Your task to perform on an android device: toggle javascript in the chrome app Image 0: 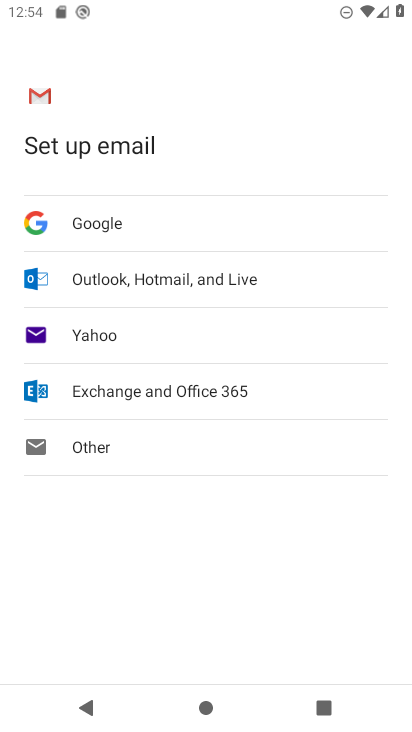
Step 0: press home button
Your task to perform on an android device: toggle javascript in the chrome app Image 1: 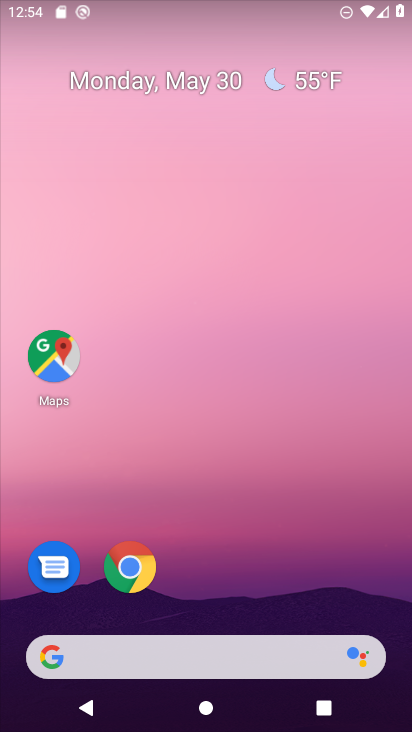
Step 1: click (129, 569)
Your task to perform on an android device: toggle javascript in the chrome app Image 2: 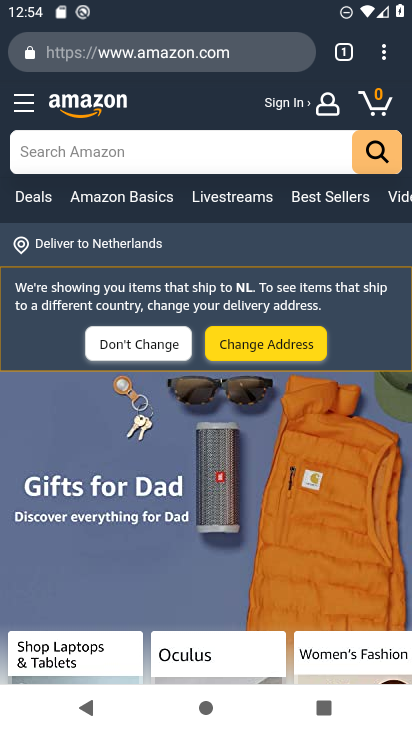
Step 2: click (383, 49)
Your task to perform on an android device: toggle javascript in the chrome app Image 3: 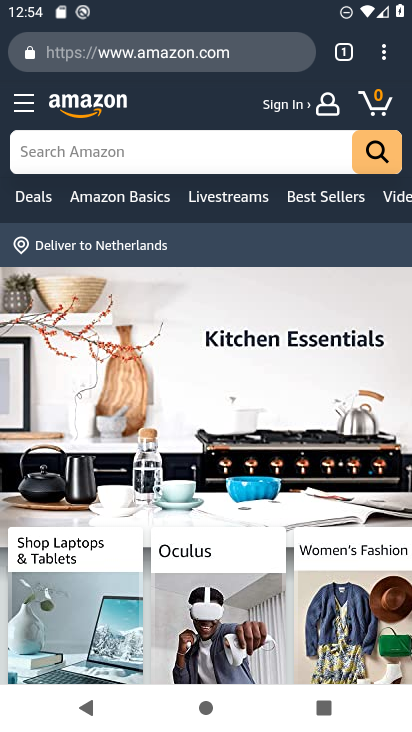
Step 3: click (381, 46)
Your task to perform on an android device: toggle javascript in the chrome app Image 4: 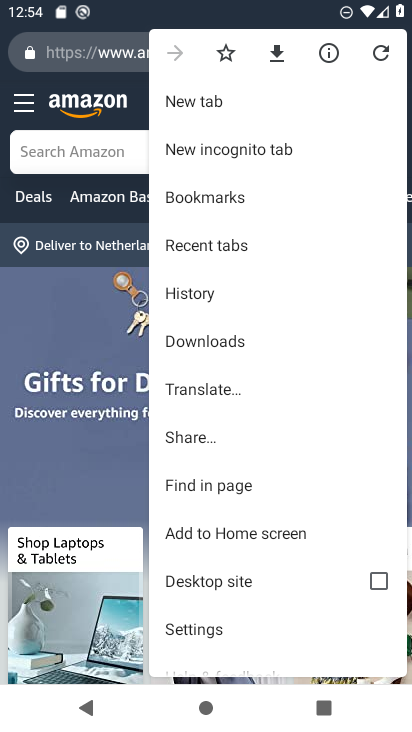
Step 4: click (227, 623)
Your task to perform on an android device: toggle javascript in the chrome app Image 5: 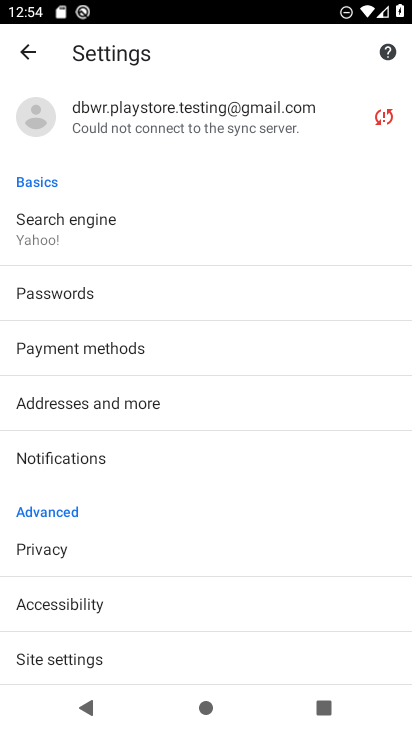
Step 5: click (109, 654)
Your task to perform on an android device: toggle javascript in the chrome app Image 6: 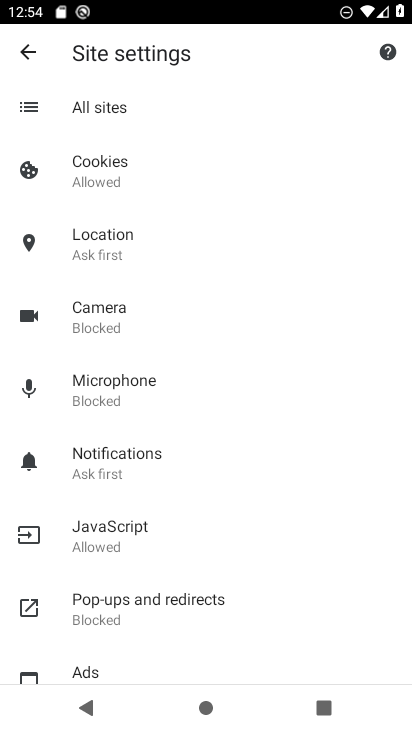
Step 6: click (162, 530)
Your task to perform on an android device: toggle javascript in the chrome app Image 7: 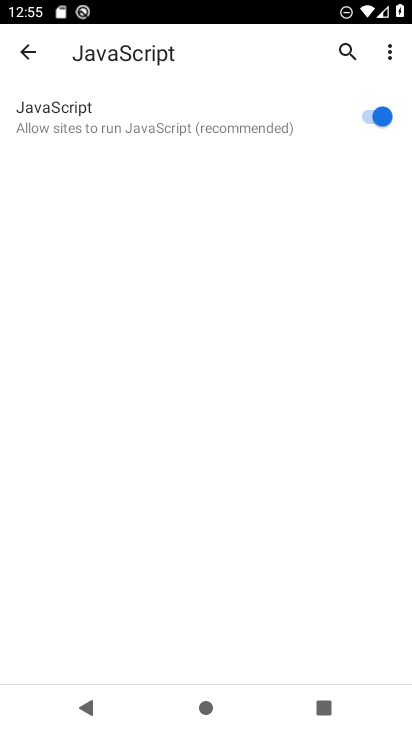
Step 7: click (372, 118)
Your task to perform on an android device: toggle javascript in the chrome app Image 8: 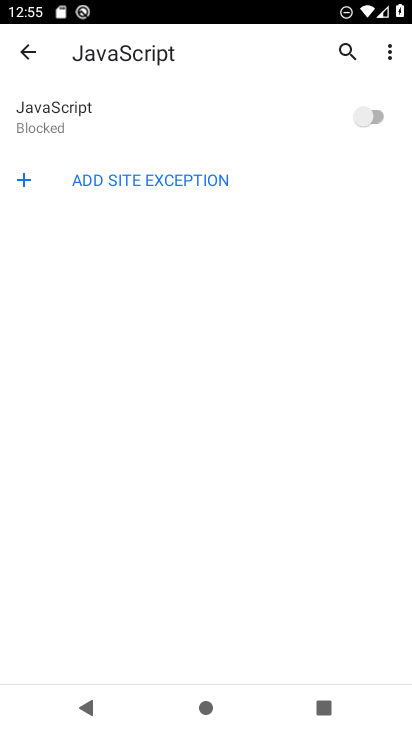
Step 8: task complete